Your task to perform on an android device: Check the news Image 0: 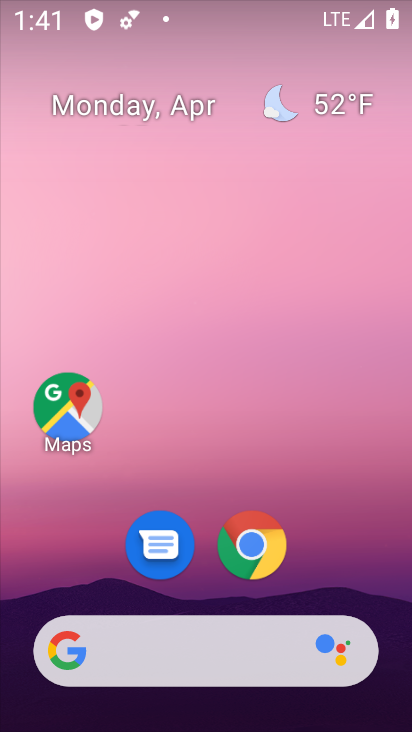
Step 0: drag from (2, 282) to (408, 268)
Your task to perform on an android device: Check the news Image 1: 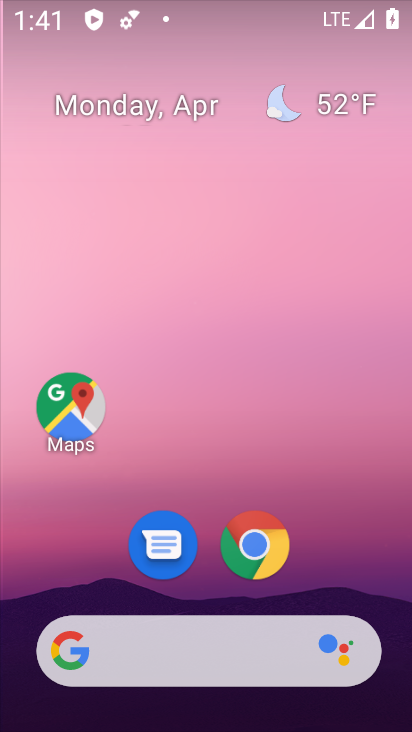
Step 1: task complete